Your task to perform on an android device: move an email to a new category in the gmail app Image 0: 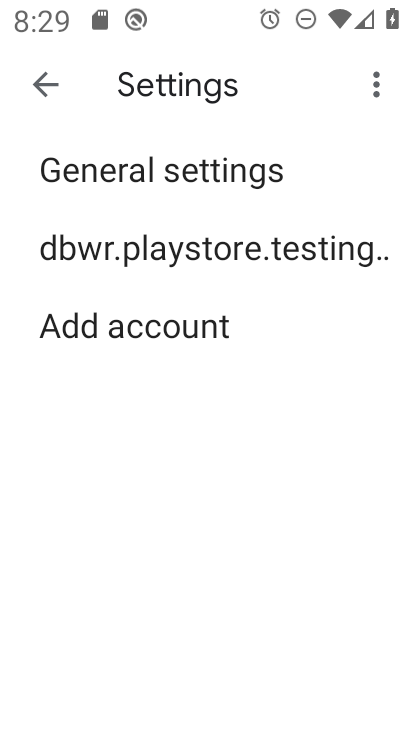
Step 0: press home button
Your task to perform on an android device: move an email to a new category in the gmail app Image 1: 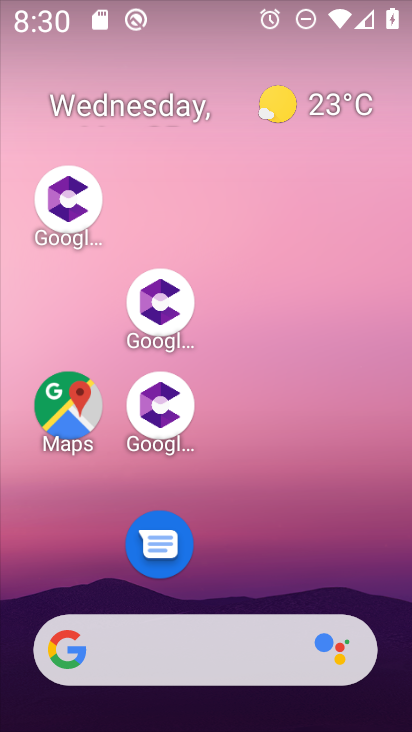
Step 1: drag from (279, 540) to (200, 108)
Your task to perform on an android device: move an email to a new category in the gmail app Image 2: 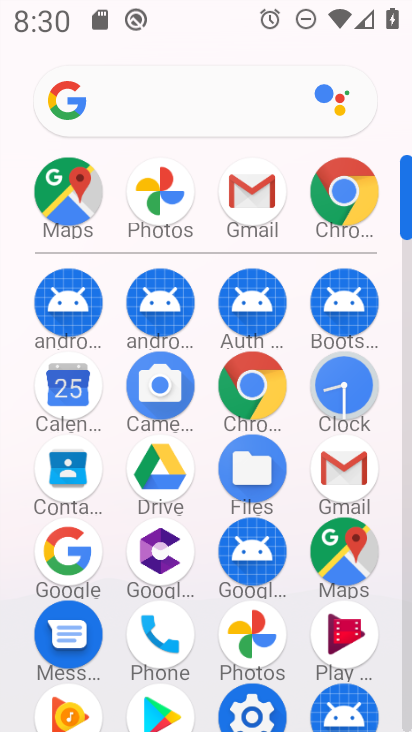
Step 2: click (243, 190)
Your task to perform on an android device: move an email to a new category in the gmail app Image 3: 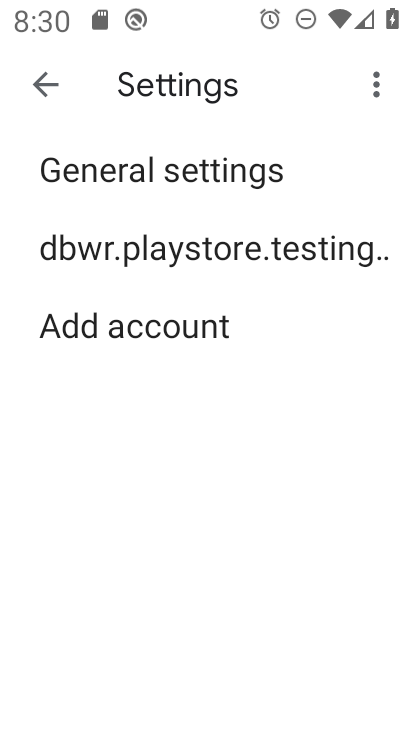
Step 3: click (57, 82)
Your task to perform on an android device: move an email to a new category in the gmail app Image 4: 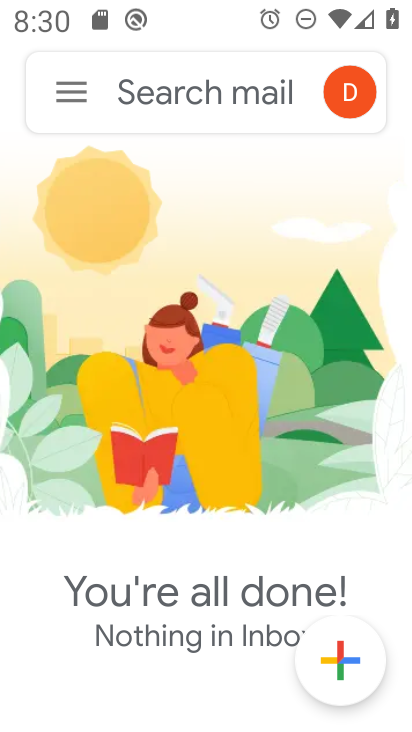
Step 4: click (73, 84)
Your task to perform on an android device: move an email to a new category in the gmail app Image 5: 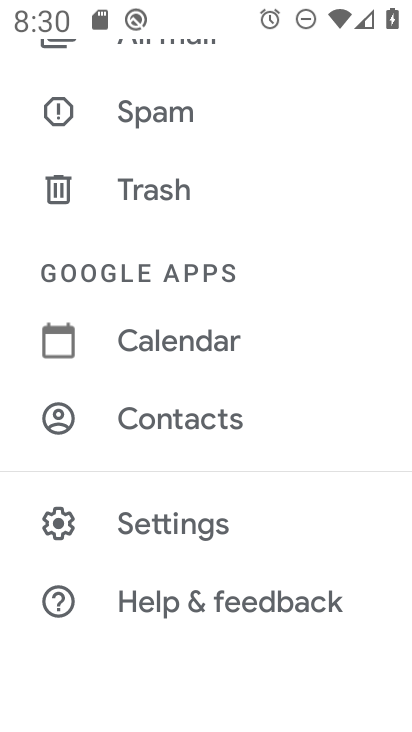
Step 5: drag from (214, 168) to (310, 698)
Your task to perform on an android device: move an email to a new category in the gmail app Image 6: 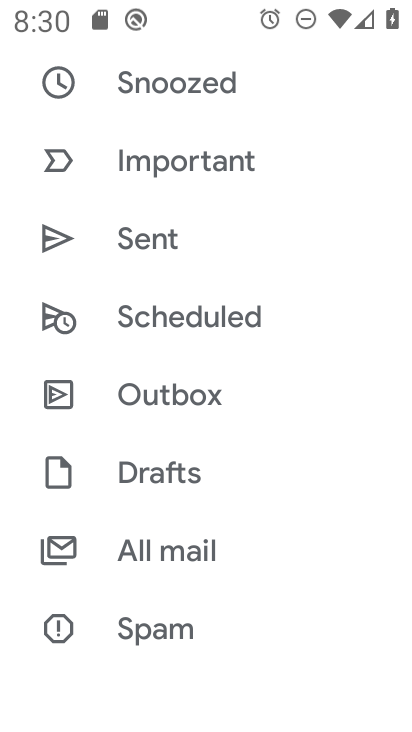
Step 6: click (186, 544)
Your task to perform on an android device: move an email to a new category in the gmail app Image 7: 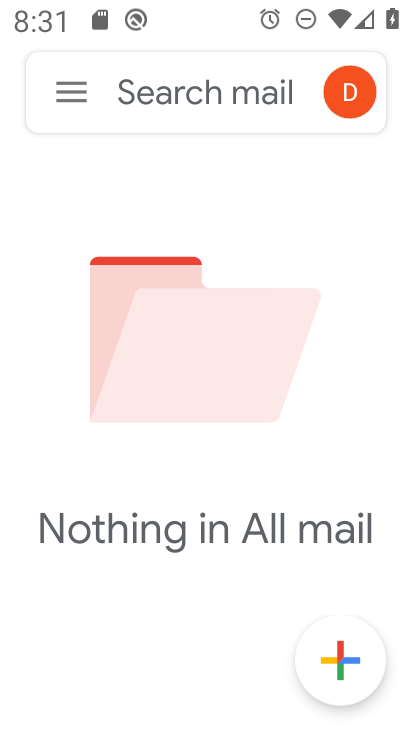
Step 7: task complete